Your task to perform on an android device: change the clock display to show seconds Image 0: 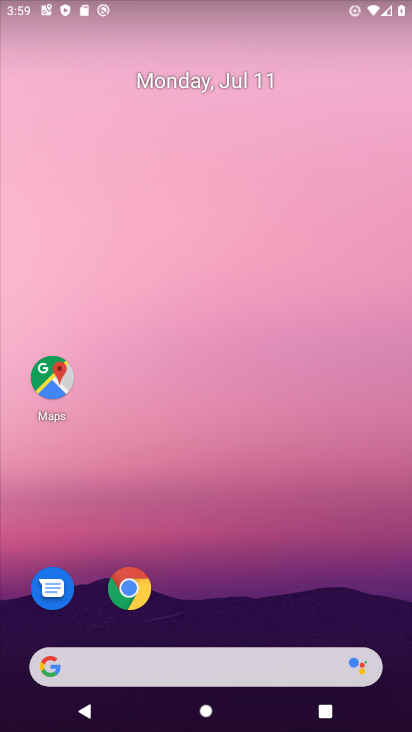
Step 0: drag from (248, 579) to (293, 6)
Your task to perform on an android device: change the clock display to show seconds Image 1: 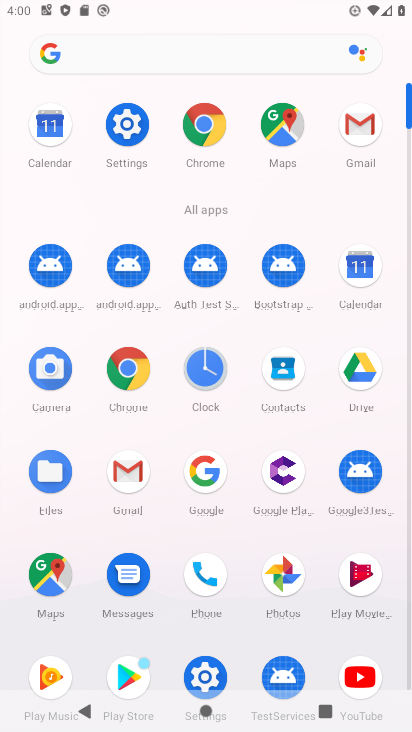
Step 1: click (207, 381)
Your task to perform on an android device: change the clock display to show seconds Image 2: 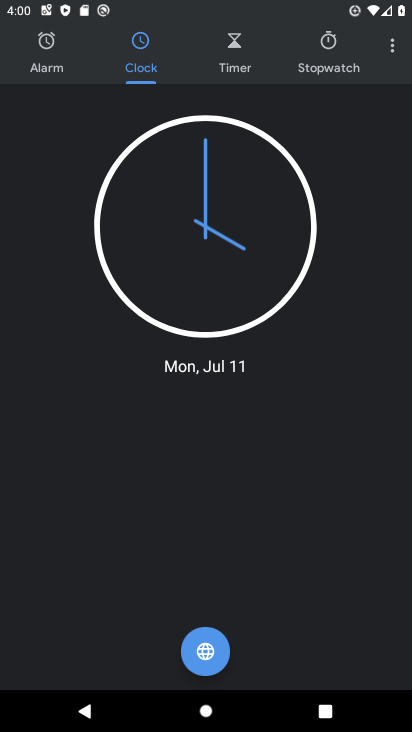
Step 2: click (394, 39)
Your task to perform on an android device: change the clock display to show seconds Image 3: 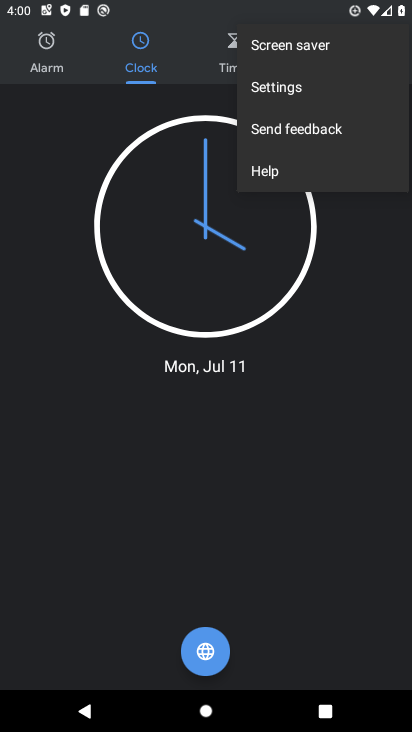
Step 3: click (281, 89)
Your task to perform on an android device: change the clock display to show seconds Image 4: 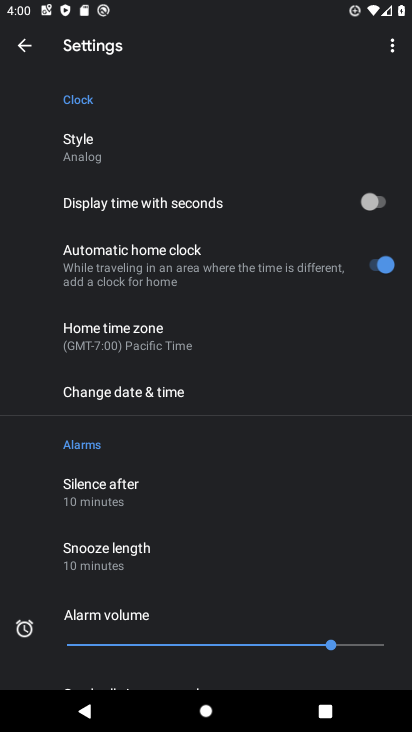
Step 4: click (98, 129)
Your task to perform on an android device: change the clock display to show seconds Image 5: 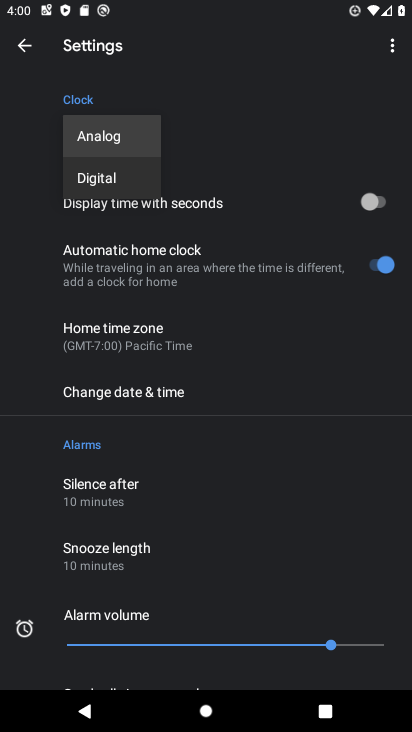
Step 5: click (370, 203)
Your task to perform on an android device: change the clock display to show seconds Image 6: 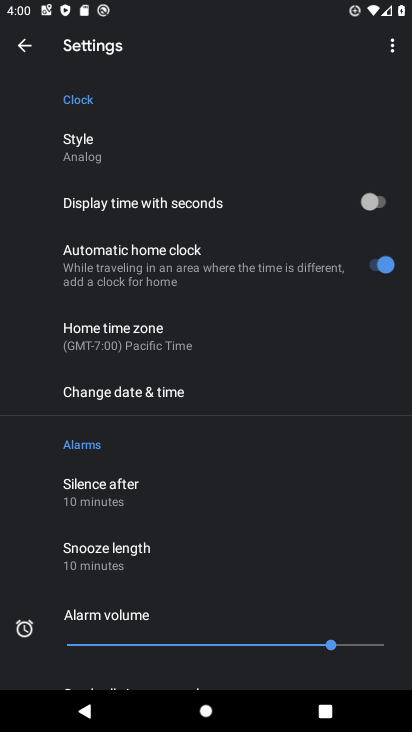
Step 6: click (377, 192)
Your task to perform on an android device: change the clock display to show seconds Image 7: 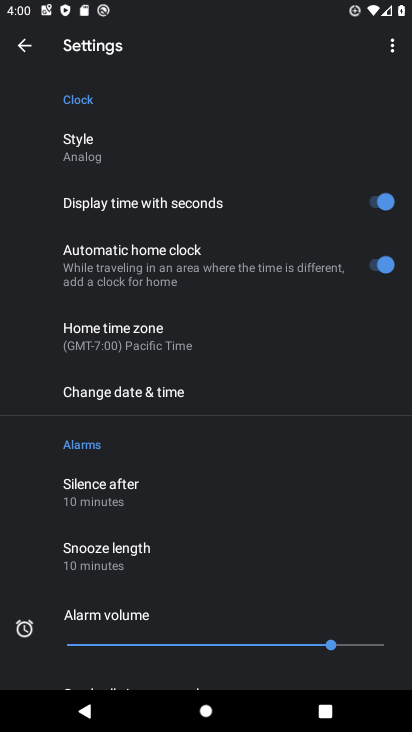
Step 7: task complete